Your task to perform on an android device: open the mobile data screen to see how much data has been used Image 0: 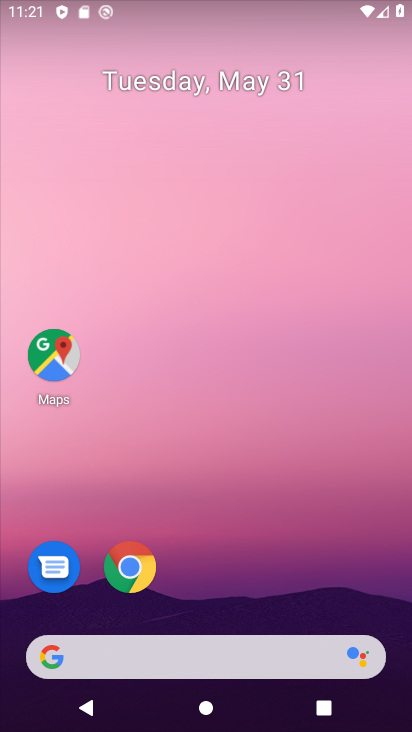
Step 0: drag from (188, 553) to (165, 37)
Your task to perform on an android device: open the mobile data screen to see how much data has been used Image 1: 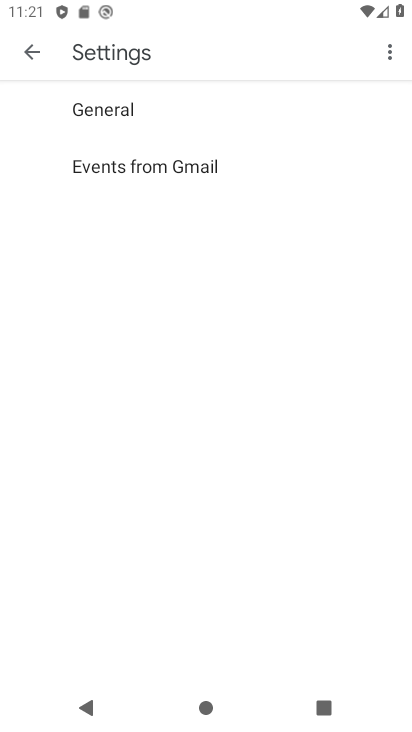
Step 1: press home button
Your task to perform on an android device: open the mobile data screen to see how much data has been used Image 2: 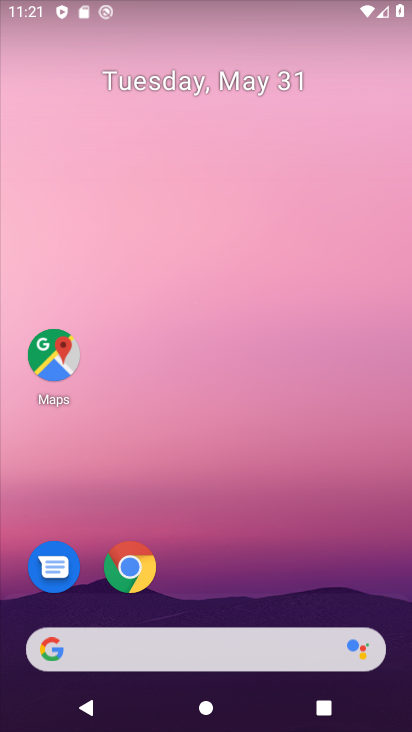
Step 2: drag from (205, 666) to (192, 71)
Your task to perform on an android device: open the mobile data screen to see how much data has been used Image 3: 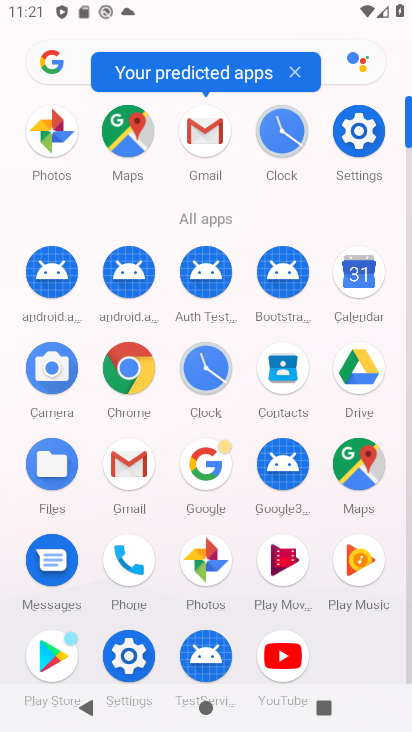
Step 3: click (341, 154)
Your task to perform on an android device: open the mobile data screen to see how much data has been used Image 4: 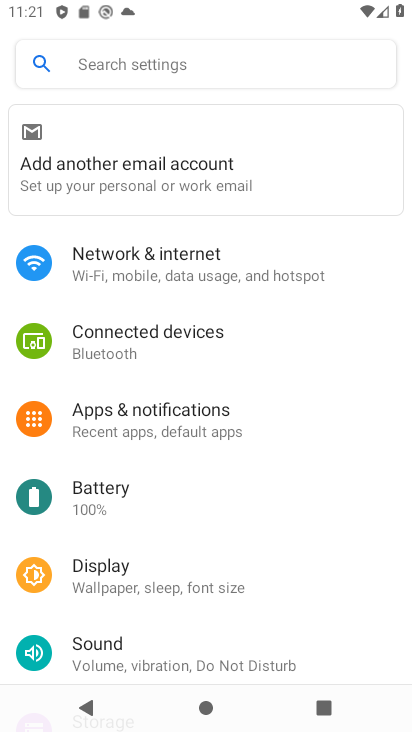
Step 4: click (202, 264)
Your task to perform on an android device: open the mobile data screen to see how much data has been used Image 5: 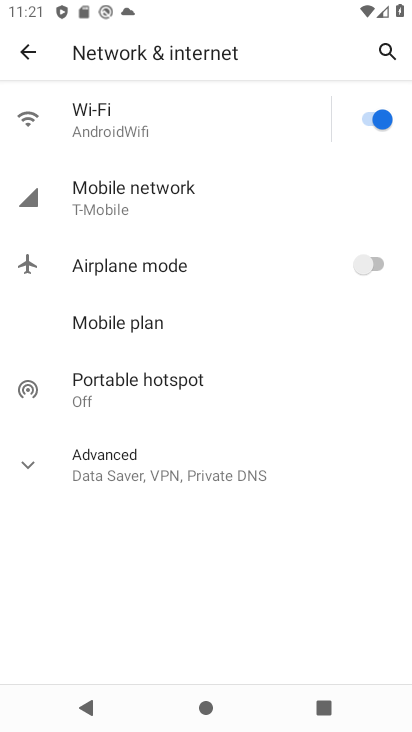
Step 5: click (146, 193)
Your task to perform on an android device: open the mobile data screen to see how much data has been used Image 6: 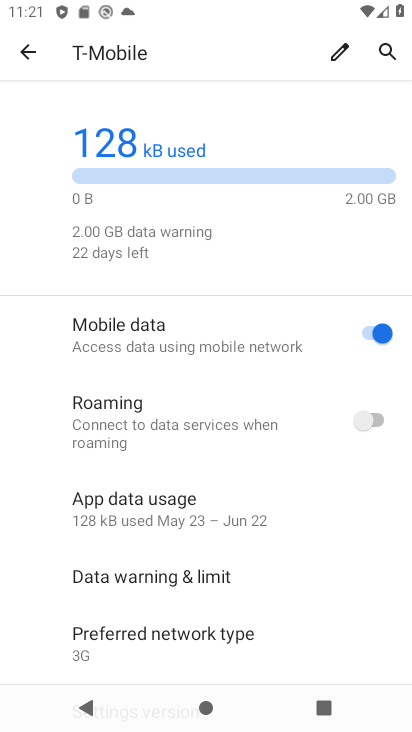
Step 6: task complete